Your task to perform on an android device: visit the assistant section in the google photos Image 0: 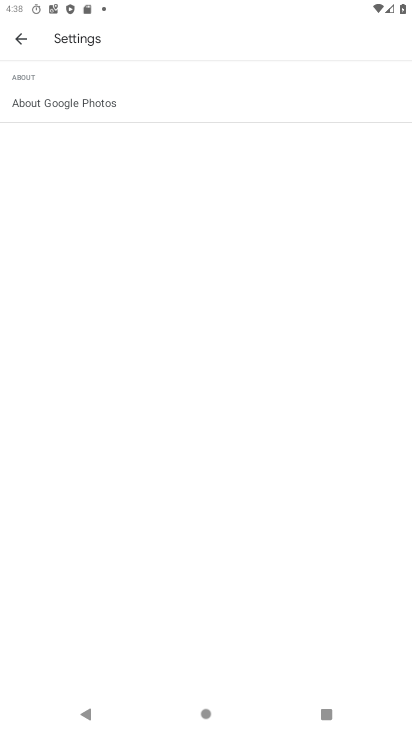
Step 0: click (14, 43)
Your task to perform on an android device: visit the assistant section in the google photos Image 1: 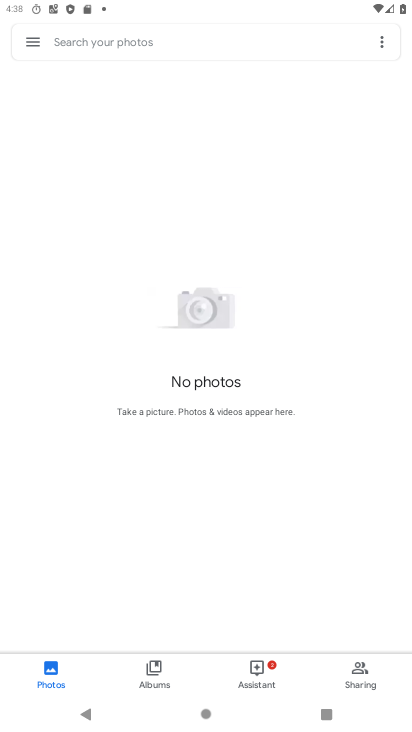
Step 1: press home button
Your task to perform on an android device: visit the assistant section in the google photos Image 2: 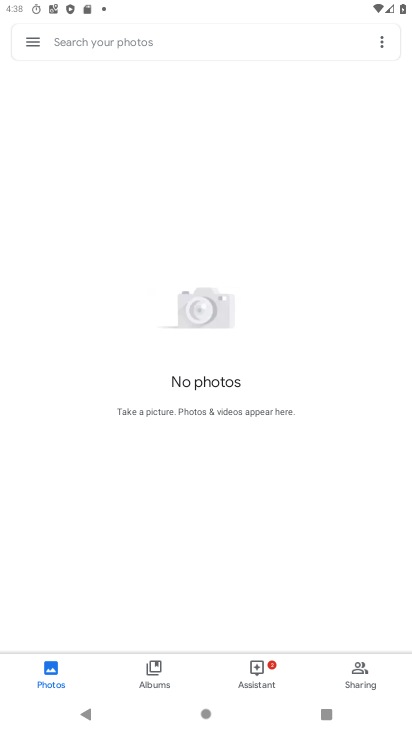
Step 2: press home button
Your task to perform on an android device: visit the assistant section in the google photos Image 3: 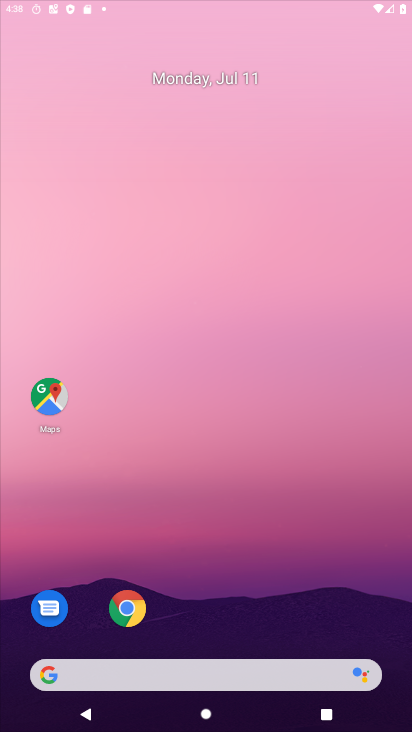
Step 3: press home button
Your task to perform on an android device: visit the assistant section in the google photos Image 4: 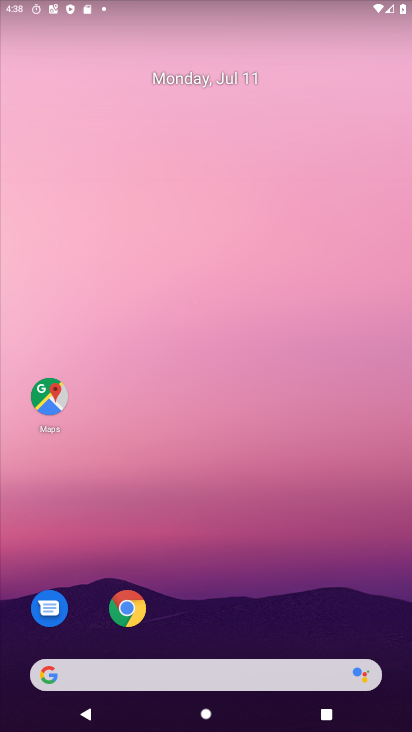
Step 4: drag from (239, 704) to (159, 62)
Your task to perform on an android device: visit the assistant section in the google photos Image 5: 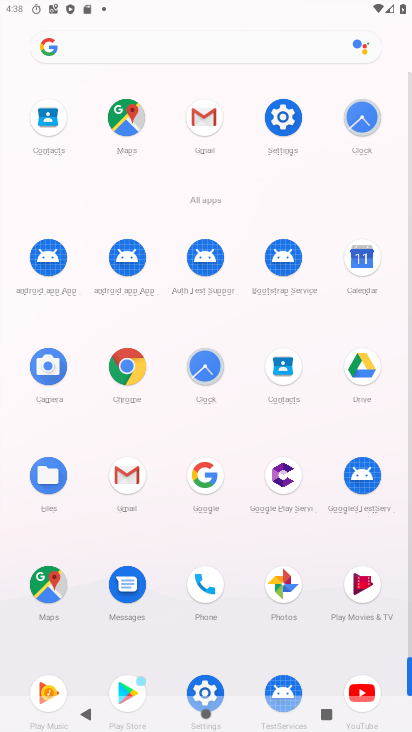
Step 5: click (280, 590)
Your task to perform on an android device: visit the assistant section in the google photos Image 6: 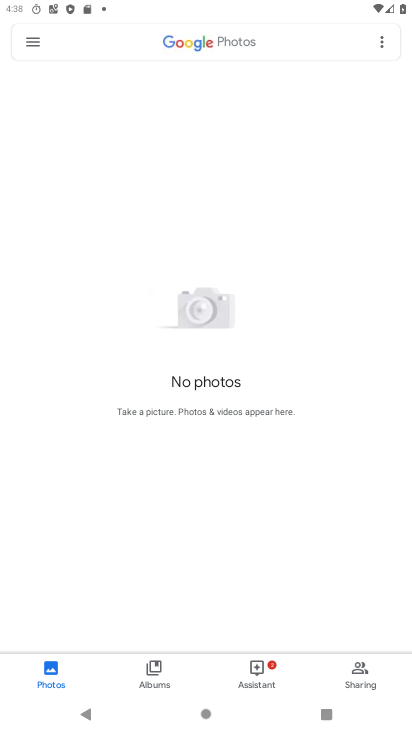
Step 6: click (257, 678)
Your task to perform on an android device: visit the assistant section in the google photos Image 7: 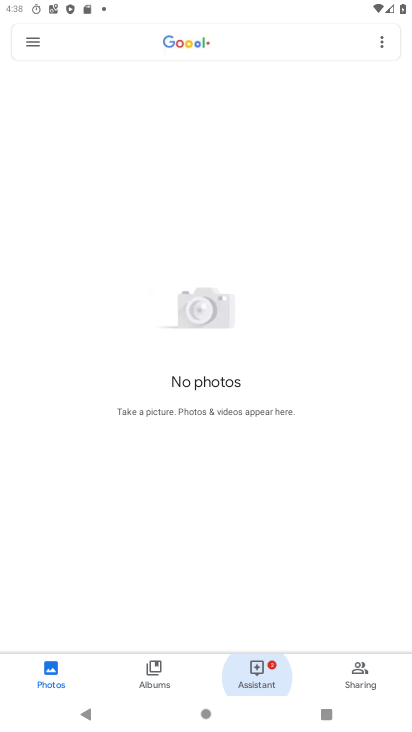
Step 7: click (258, 678)
Your task to perform on an android device: visit the assistant section in the google photos Image 8: 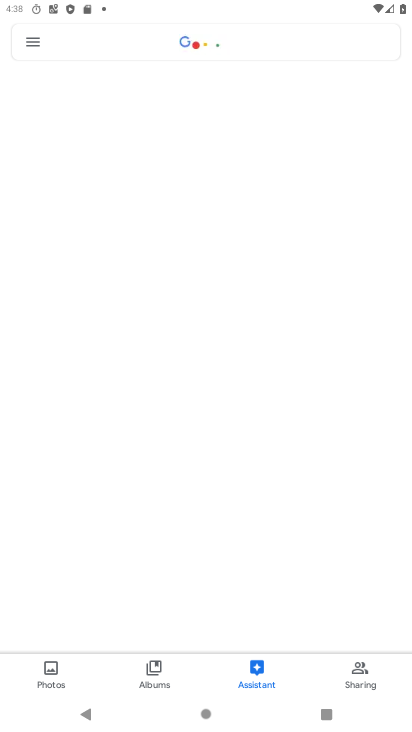
Step 8: click (259, 678)
Your task to perform on an android device: visit the assistant section in the google photos Image 9: 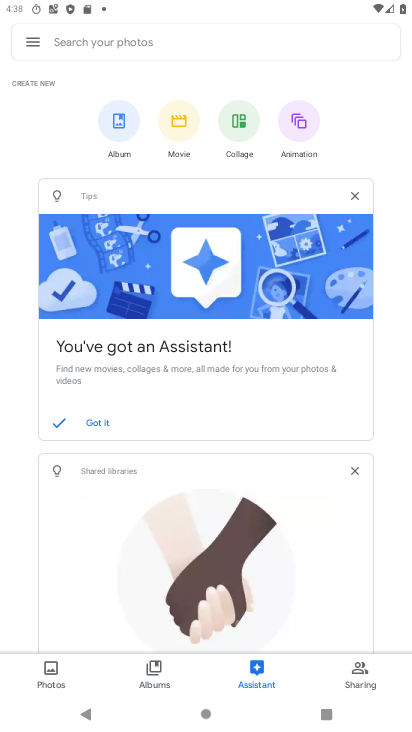
Step 9: task complete